Your task to perform on an android device: turn on the 12-hour format for clock Image 0: 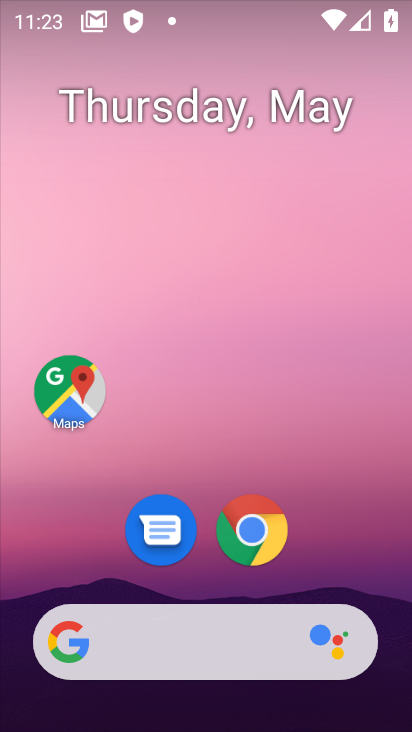
Step 0: drag from (399, 407) to (402, 287)
Your task to perform on an android device: turn on the 12-hour format for clock Image 1: 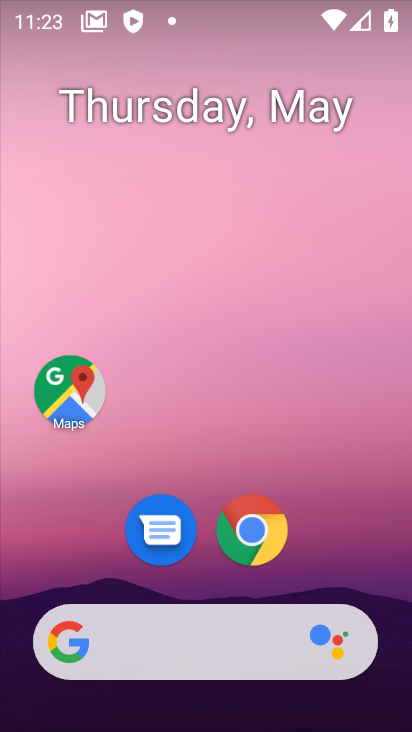
Step 1: drag from (398, 635) to (358, 336)
Your task to perform on an android device: turn on the 12-hour format for clock Image 2: 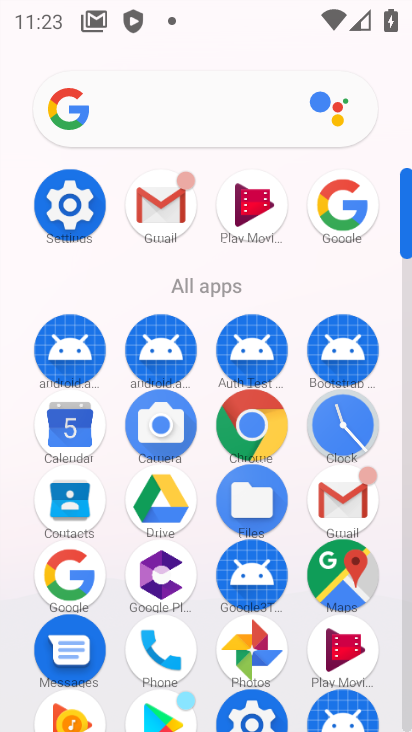
Step 2: click (341, 423)
Your task to perform on an android device: turn on the 12-hour format for clock Image 3: 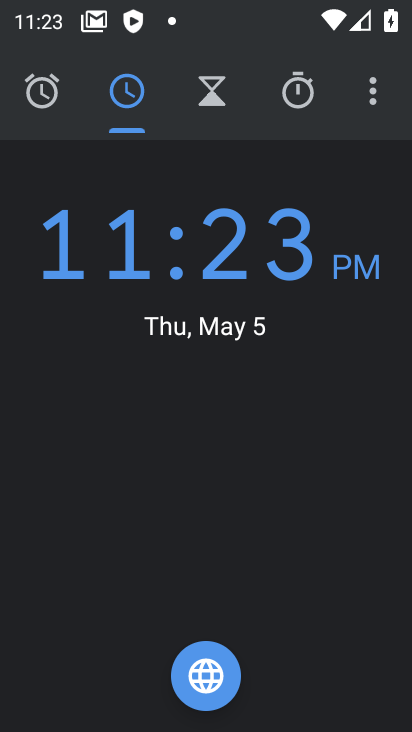
Step 3: click (373, 84)
Your task to perform on an android device: turn on the 12-hour format for clock Image 4: 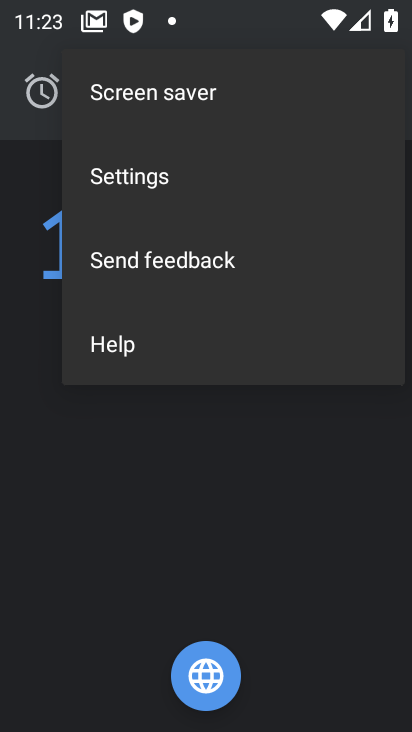
Step 4: click (92, 183)
Your task to perform on an android device: turn on the 12-hour format for clock Image 5: 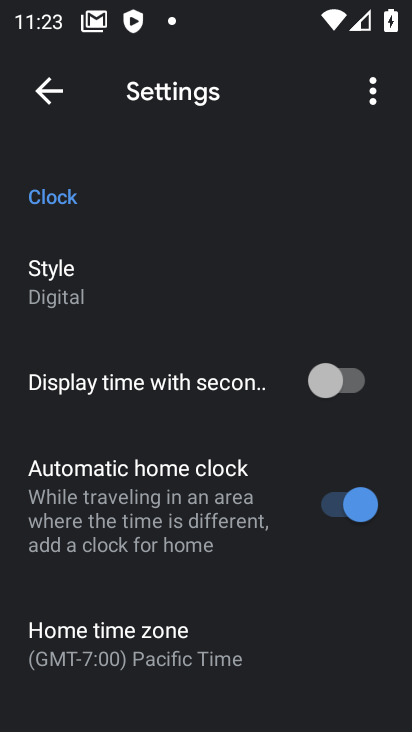
Step 5: click (56, 284)
Your task to perform on an android device: turn on the 12-hour format for clock Image 6: 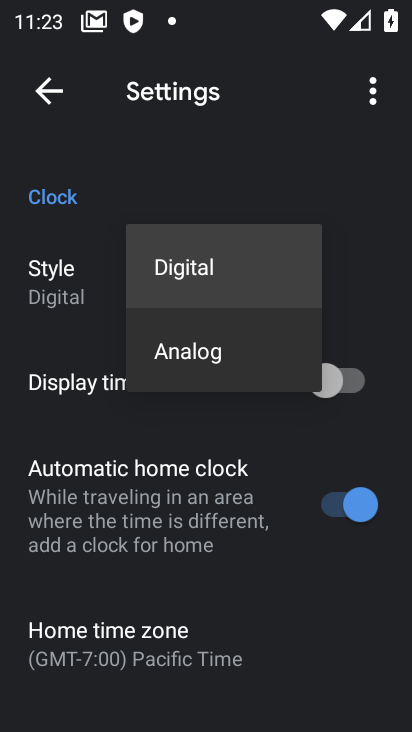
Step 6: click (378, 272)
Your task to perform on an android device: turn on the 12-hour format for clock Image 7: 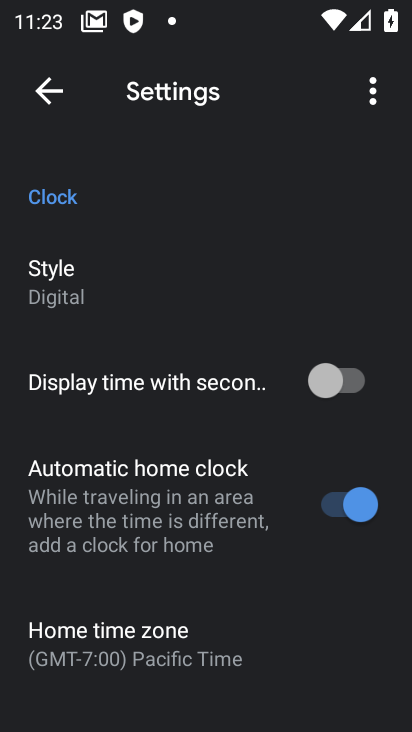
Step 7: drag from (291, 559) to (290, 309)
Your task to perform on an android device: turn on the 12-hour format for clock Image 8: 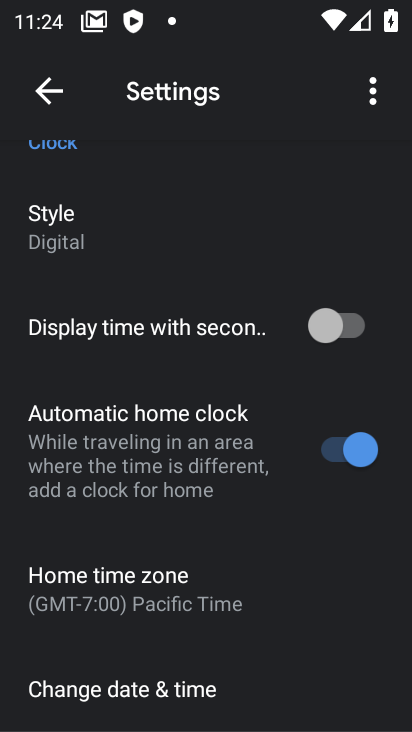
Step 8: drag from (247, 673) to (277, 421)
Your task to perform on an android device: turn on the 12-hour format for clock Image 9: 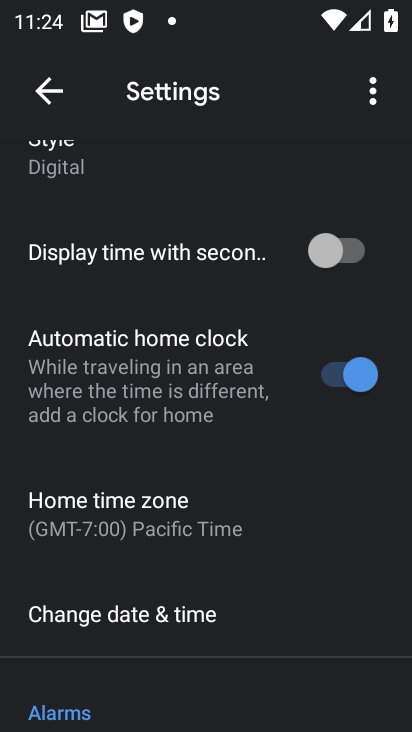
Step 9: click (110, 619)
Your task to perform on an android device: turn on the 12-hour format for clock Image 10: 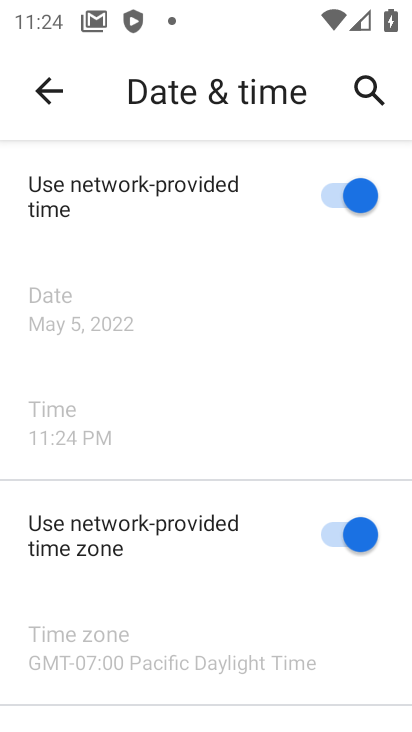
Step 10: task complete